Your task to perform on an android device: What is the capital of France? Image 0: 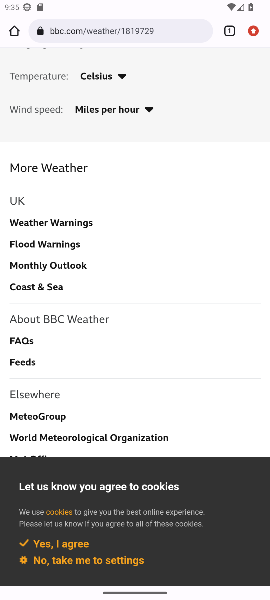
Step 0: click (110, 31)
Your task to perform on an android device: What is the capital of France? Image 1: 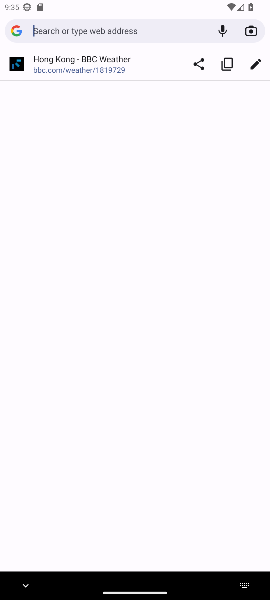
Step 1: type "What is the capital of France?"
Your task to perform on an android device: What is the capital of France? Image 2: 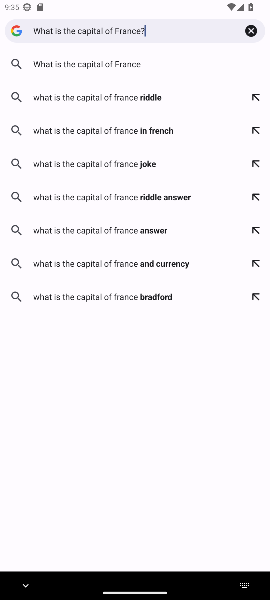
Step 2: press enter
Your task to perform on an android device: What is the capital of France? Image 3: 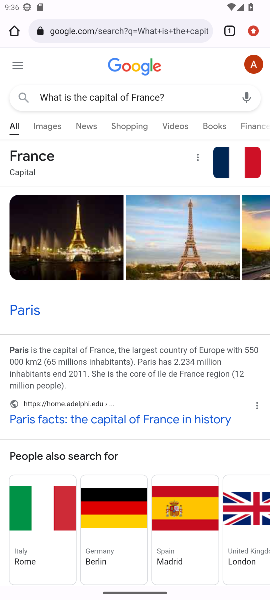
Step 3: click (39, 410)
Your task to perform on an android device: What is the capital of France? Image 4: 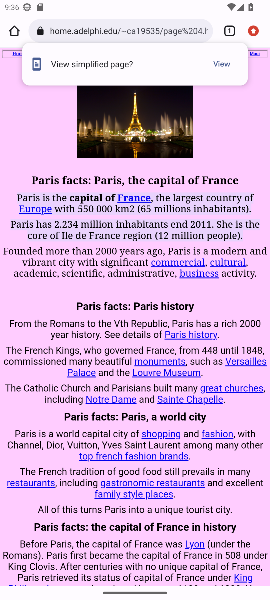
Step 4: drag from (77, 557) to (140, 141)
Your task to perform on an android device: What is the capital of France? Image 5: 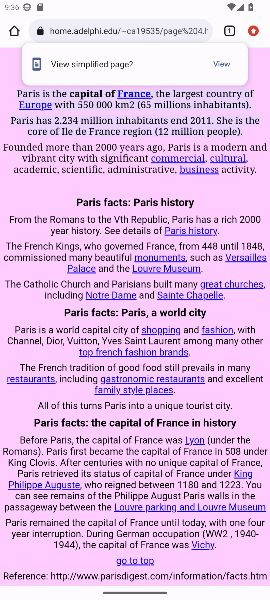
Step 5: drag from (110, 469) to (135, 207)
Your task to perform on an android device: What is the capital of France? Image 6: 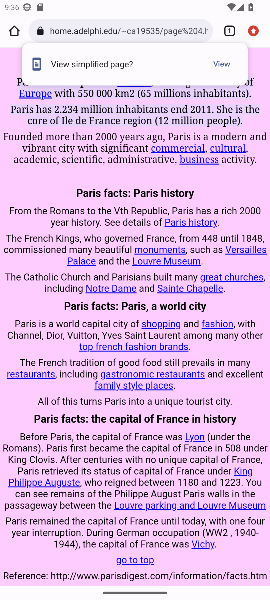
Step 6: drag from (127, 475) to (150, 236)
Your task to perform on an android device: What is the capital of France? Image 7: 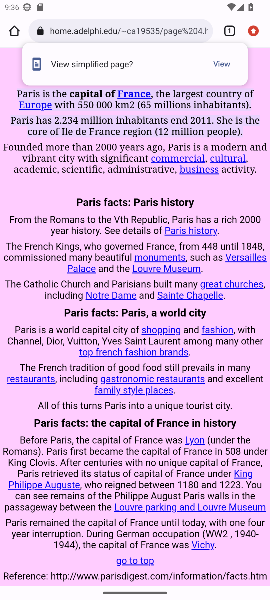
Step 7: drag from (152, 190) to (153, 405)
Your task to perform on an android device: What is the capital of France? Image 8: 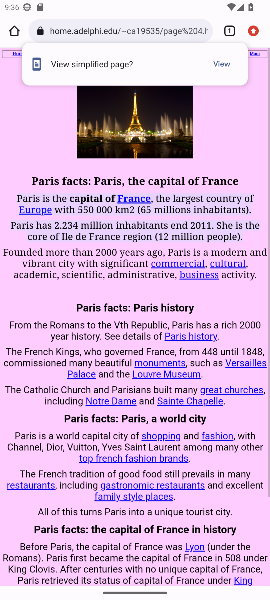
Step 8: drag from (160, 266) to (144, 440)
Your task to perform on an android device: What is the capital of France? Image 9: 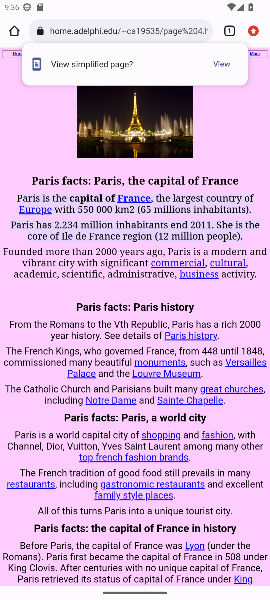
Step 9: drag from (175, 235) to (156, 448)
Your task to perform on an android device: What is the capital of France? Image 10: 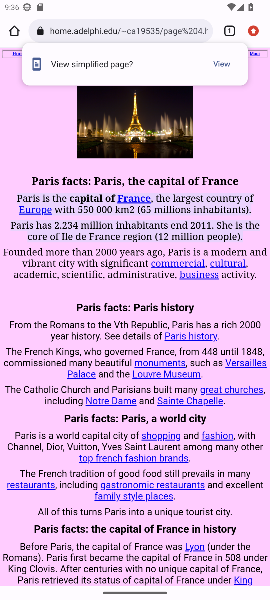
Step 10: drag from (167, 314) to (163, 362)
Your task to perform on an android device: What is the capital of France? Image 11: 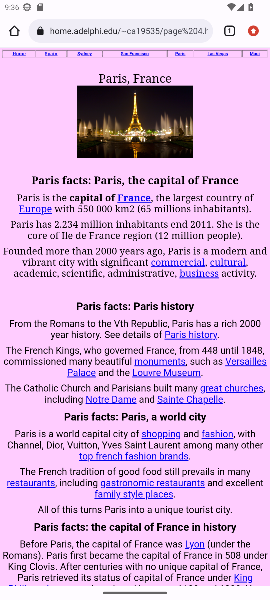
Step 11: drag from (170, 423) to (201, 144)
Your task to perform on an android device: What is the capital of France? Image 12: 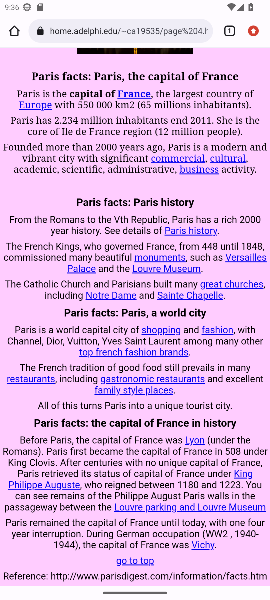
Step 12: drag from (152, 458) to (175, 136)
Your task to perform on an android device: What is the capital of France? Image 13: 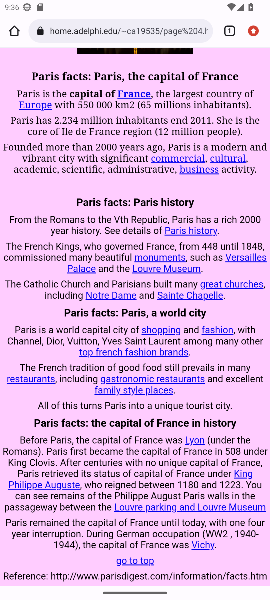
Step 13: drag from (164, 423) to (189, 136)
Your task to perform on an android device: What is the capital of France? Image 14: 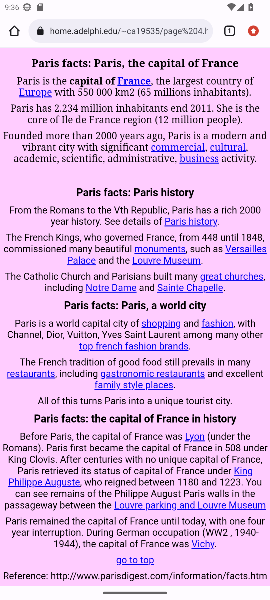
Step 14: drag from (194, 101) to (141, 558)
Your task to perform on an android device: What is the capital of France? Image 15: 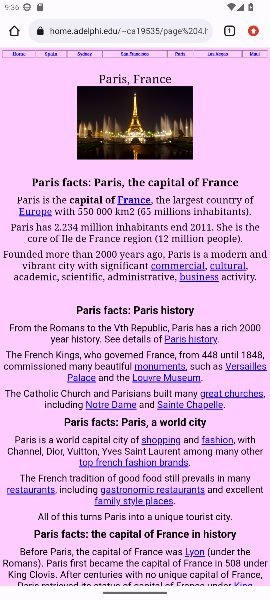
Step 15: drag from (214, 112) to (161, 389)
Your task to perform on an android device: What is the capital of France? Image 16: 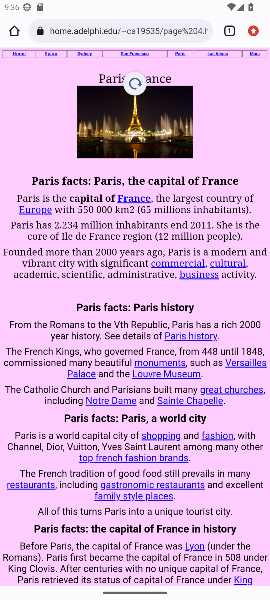
Step 16: drag from (143, 468) to (159, 139)
Your task to perform on an android device: What is the capital of France? Image 17: 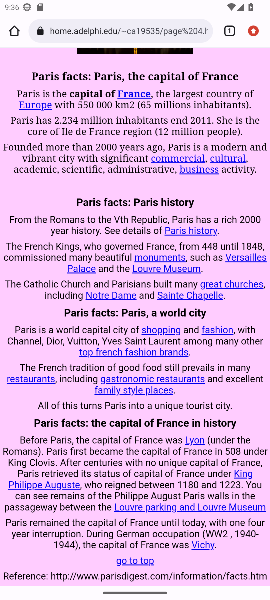
Step 17: drag from (149, 353) to (162, 138)
Your task to perform on an android device: What is the capital of France? Image 18: 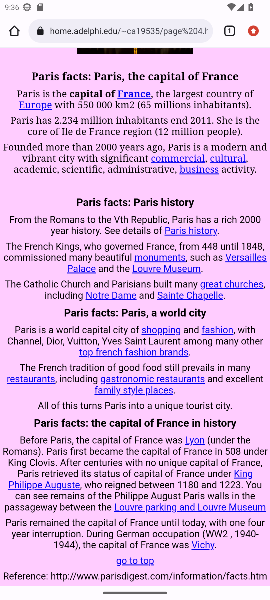
Step 18: press back button
Your task to perform on an android device: What is the capital of France? Image 19: 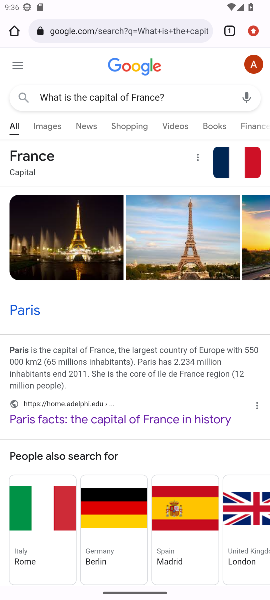
Step 19: drag from (197, 218) to (195, 108)
Your task to perform on an android device: What is the capital of France? Image 20: 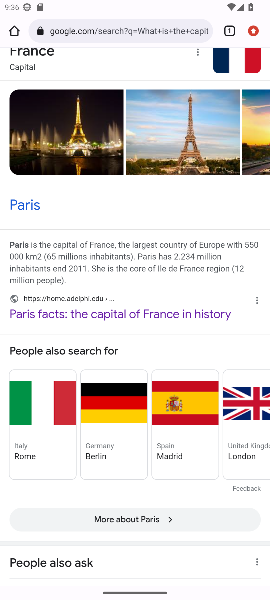
Step 20: drag from (124, 491) to (172, 134)
Your task to perform on an android device: What is the capital of France? Image 21: 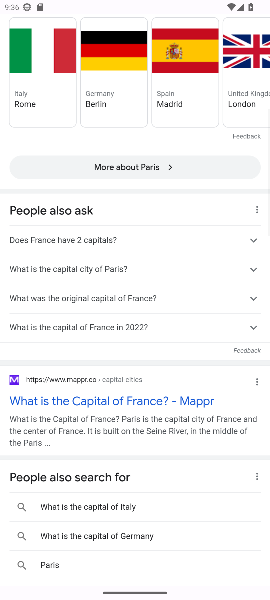
Step 21: click (86, 403)
Your task to perform on an android device: What is the capital of France? Image 22: 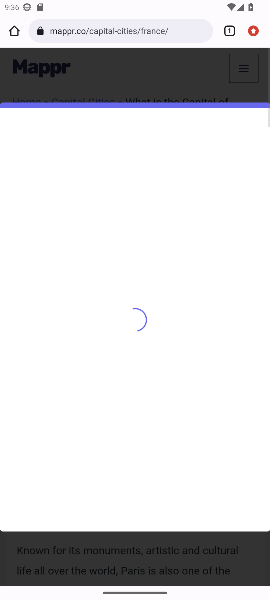
Step 22: drag from (129, 472) to (116, 208)
Your task to perform on an android device: What is the capital of France? Image 23: 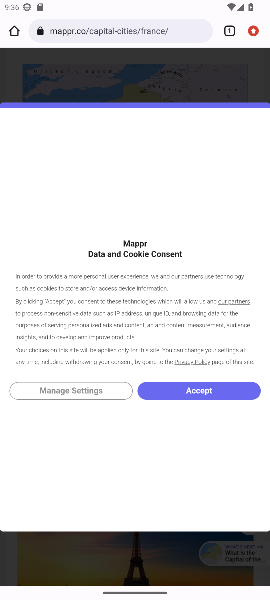
Step 23: click (175, 396)
Your task to perform on an android device: What is the capital of France? Image 24: 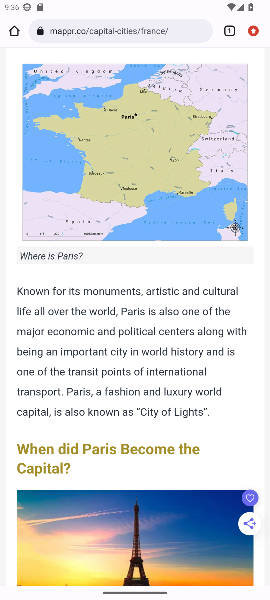
Step 24: drag from (169, 429) to (201, 87)
Your task to perform on an android device: What is the capital of France? Image 25: 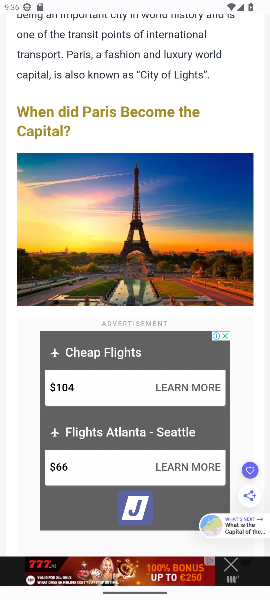
Step 25: drag from (151, 469) to (175, 137)
Your task to perform on an android device: What is the capital of France? Image 26: 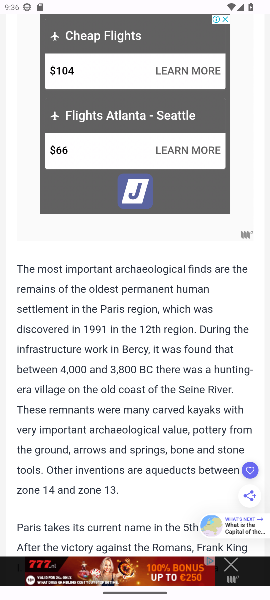
Step 26: drag from (182, 473) to (204, 167)
Your task to perform on an android device: What is the capital of France? Image 27: 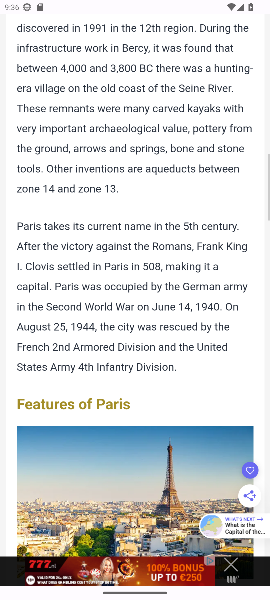
Step 27: drag from (175, 396) to (177, 280)
Your task to perform on an android device: What is the capital of France? Image 28: 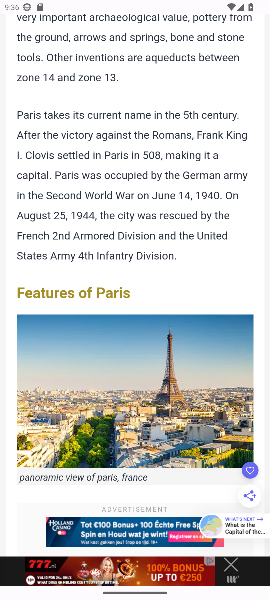
Step 28: drag from (133, 292) to (143, 42)
Your task to perform on an android device: What is the capital of France? Image 29: 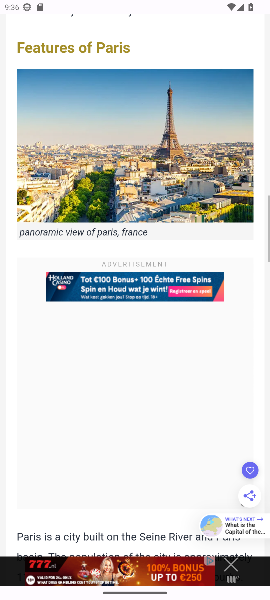
Step 29: click (148, 60)
Your task to perform on an android device: What is the capital of France? Image 30: 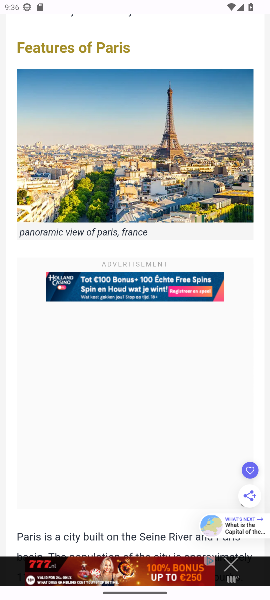
Step 30: drag from (130, 427) to (136, 163)
Your task to perform on an android device: What is the capital of France? Image 31: 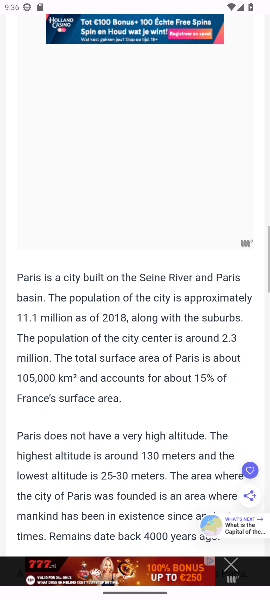
Step 31: drag from (141, 133) to (157, 430)
Your task to perform on an android device: What is the capital of France? Image 32: 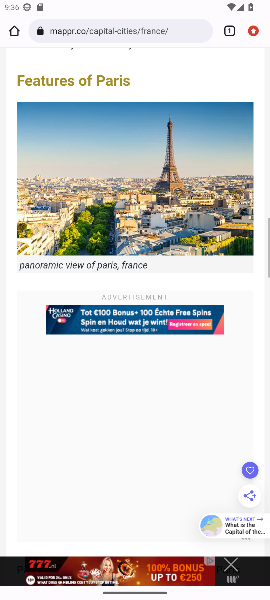
Step 32: drag from (176, 261) to (196, 6)
Your task to perform on an android device: What is the capital of France? Image 33: 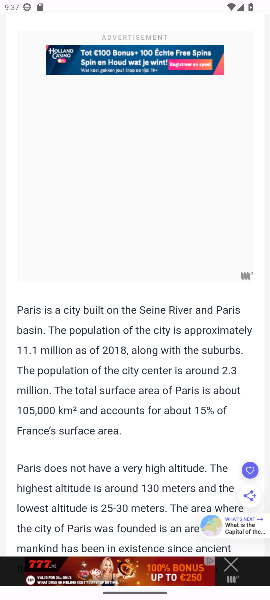
Step 33: click (222, 566)
Your task to perform on an android device: What is the capital of France? Image 34: 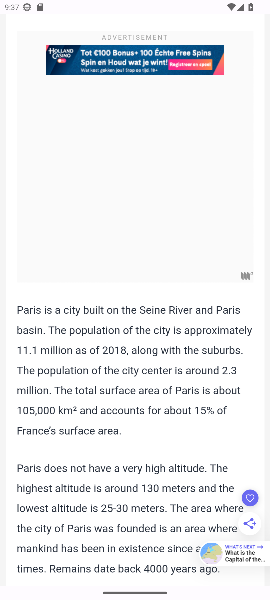
Step 34: click (166, 132)
Your task to perform on an android device: What is the capital of France? Image 35: 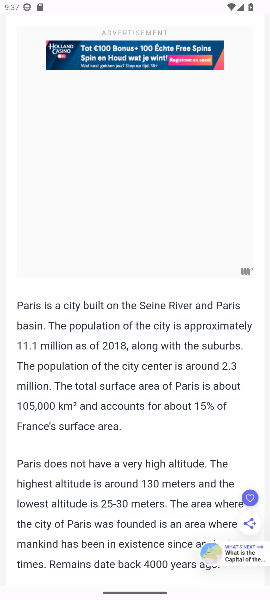
Step 35: drag from (194, 523) to (219, 136)
Your task to perform on an android device: What is the capital of France? Image 36: 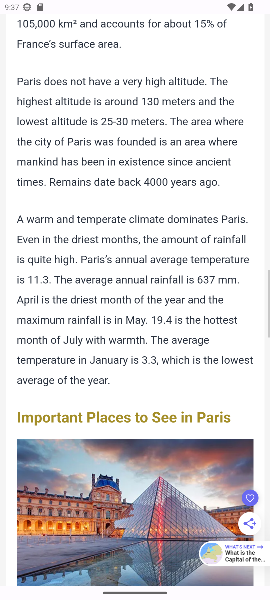
Step 36: drag from (195, 446) to (220, 109)
Your task to perform on an android device: What is the capital of France? Image 37: 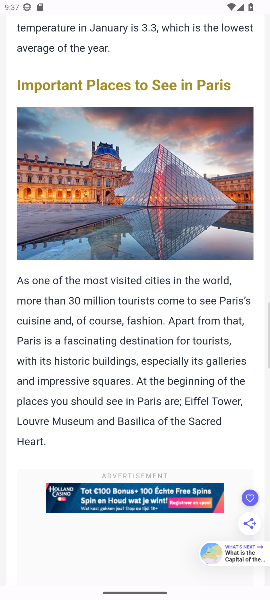
Step 37: drag from (143, 491) to (161, 117)
Your task to perform on an android device: What is the capital of France? Image 38: 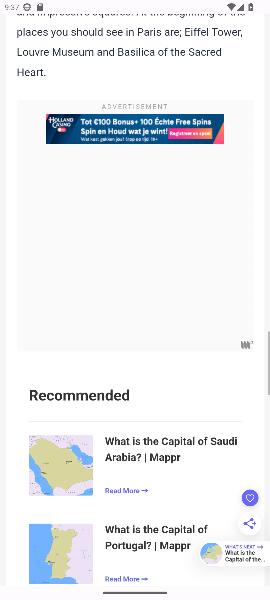
Step 38: drag from (136, 455) to (193, 154)
Your task to perform on an android device: What is the capital of France? Image 39: 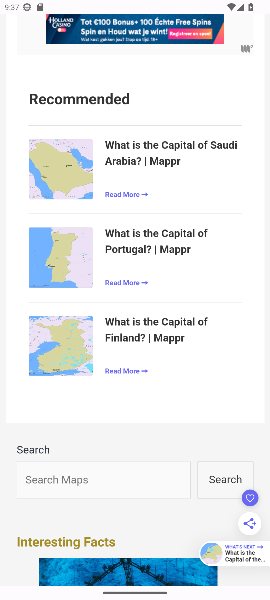
Step 39: drag from (173, 417) to (221, 172)
Your task to perform on an android device: What is the capital of France? Image 40: 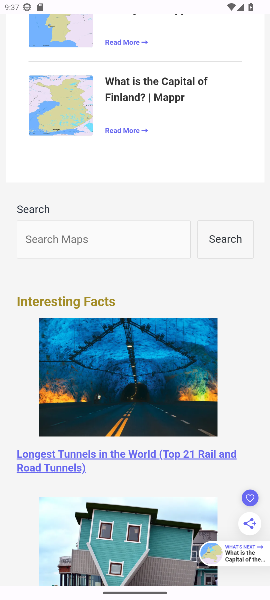
Step 40: drag from (205, 403) to (246, 68)
Your task to perform on an android device: What is the capital of France? Image 41: 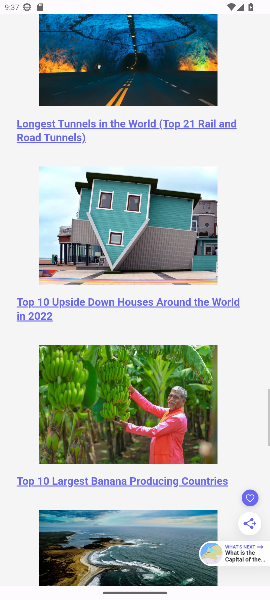
Step 41: drag from (200, 328) to (237, 102)
Your task to perform on an android device: What is the capital of France? Image 42: 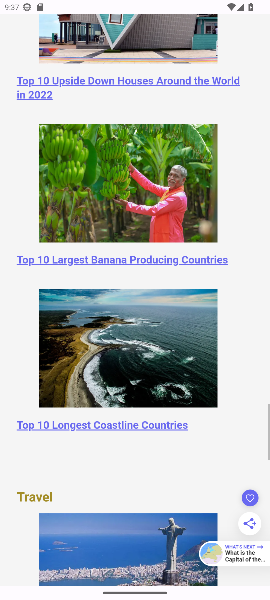
Step 42: drag from (205, 326) to (221, 160)
Your task to perform on an android device: What is the capital of France? Image 43: 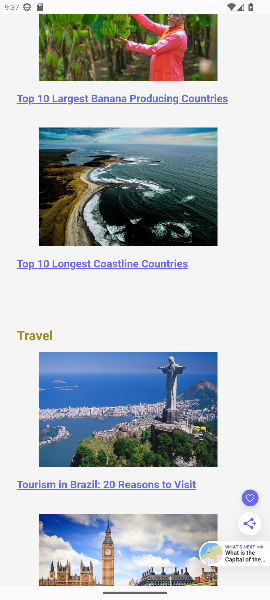
Step 43: drag from (233, 340) to (253, 142)
Your task to perform on an android device: What is the capital of France? Image 44: 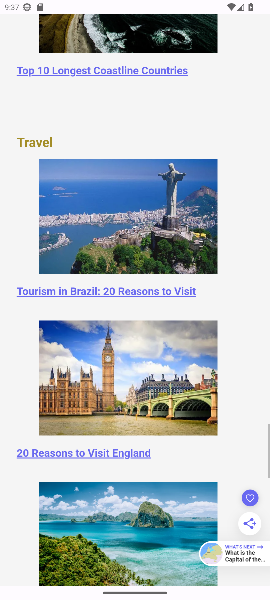
Step 44: drag from (227, 272) to (239, 202)
Your task to perform on an android device: What is the capital of France? Image 45: 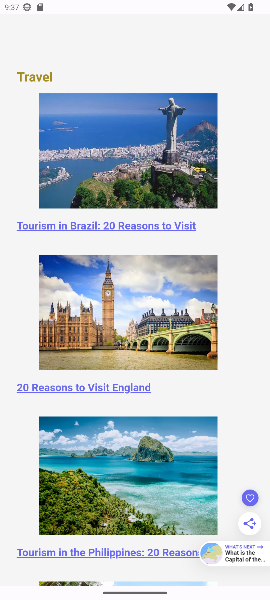
Step 45: drag from (178, 398) to (223, 136)
Your task to perform on an android device: What is the capital of France? Image 46: 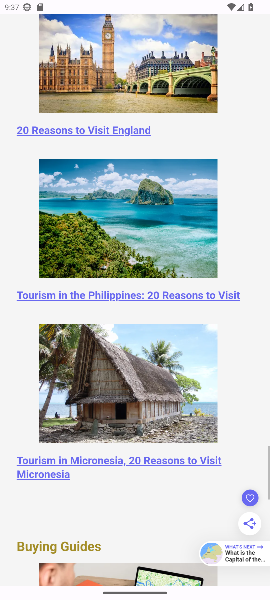
Step 46: drag from (172, 301) to (201, 119)
Your task to perform on an android device: What is the capital of France? Image 47: 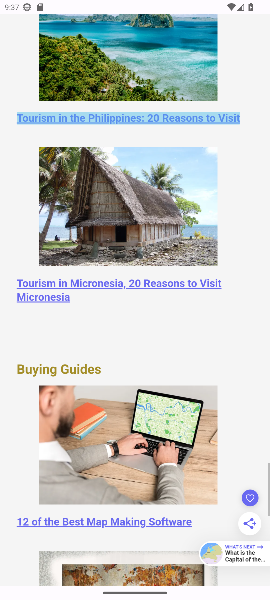
Step 47: drag from (178, 273) to (219, 58)
Your task to perform on an android device: What is the capital of France? Image 48: 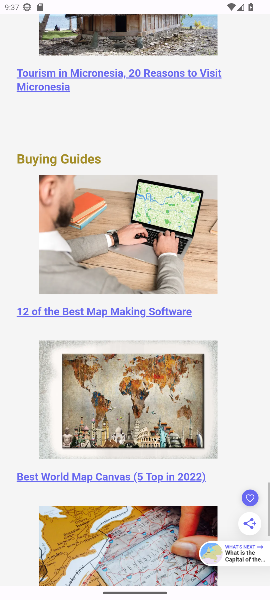
Step 48: drag from (174, 281) to (178, 91)
Your task to perform on an android device: What is the capital of France? Image 49: 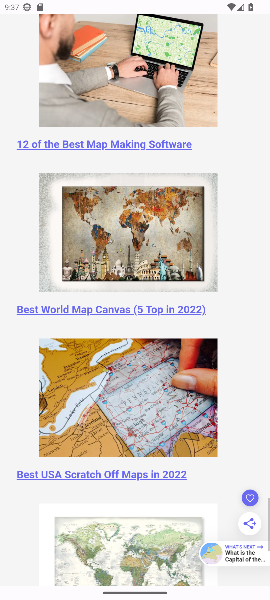
Step 49: drag from (152, 294) to (181, 113)
Your task to perform on an android device: What is the capital of France? Image 50: 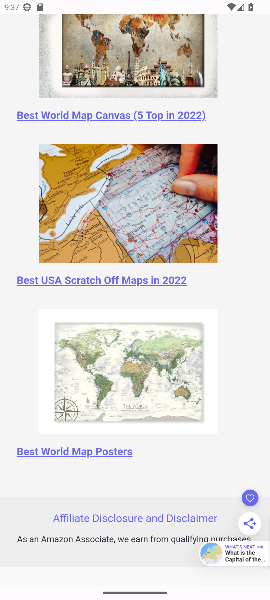
Step 50: click (173, 139)
Your task to perform on an android device: What is the capital of France? Image 51: 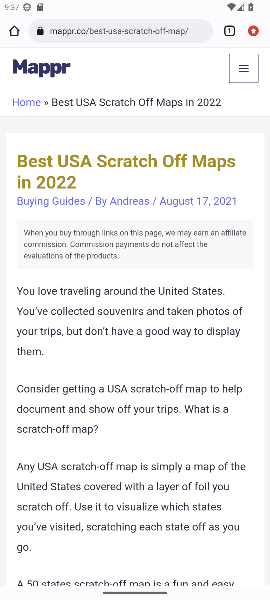
Step 51: task complete